Your task to perform on an android device: Do I have any events this weekend? Image 0: 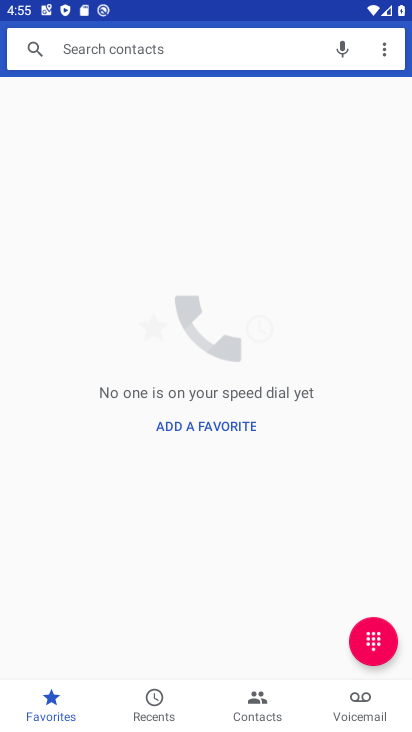
Step 0: press home button
Your task to perform on an android device: Do I have any events this weekend? Image 1: 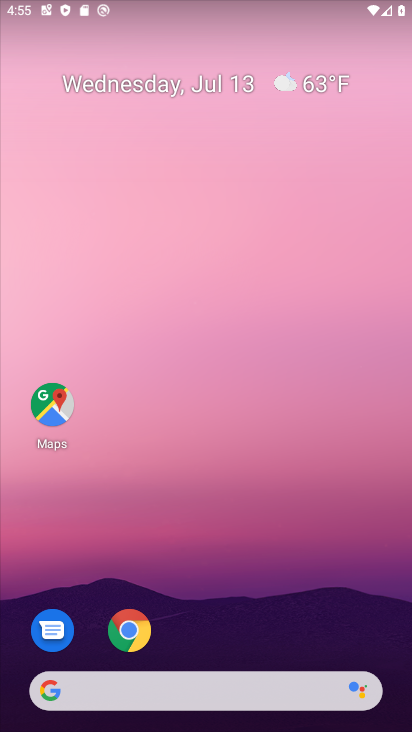
Step 1: drag from (241, 653) to (253, 251)
Your task to perform on an android device: Do I have any events this weekend? Image 2: 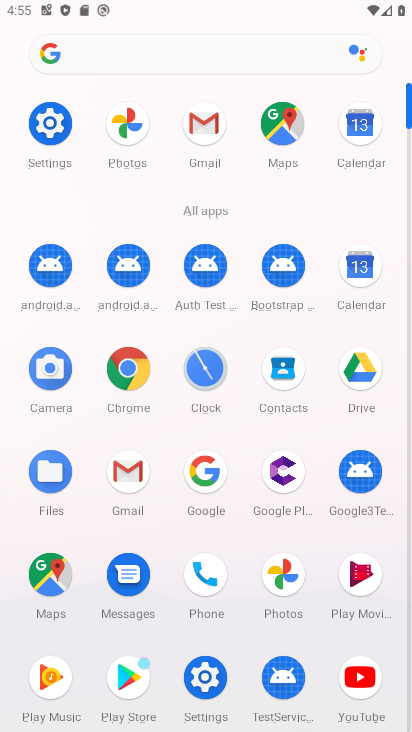
Step 2: click (372, 272)
Your task to perform on an android device: Do I have any events this weekend? Image 3: 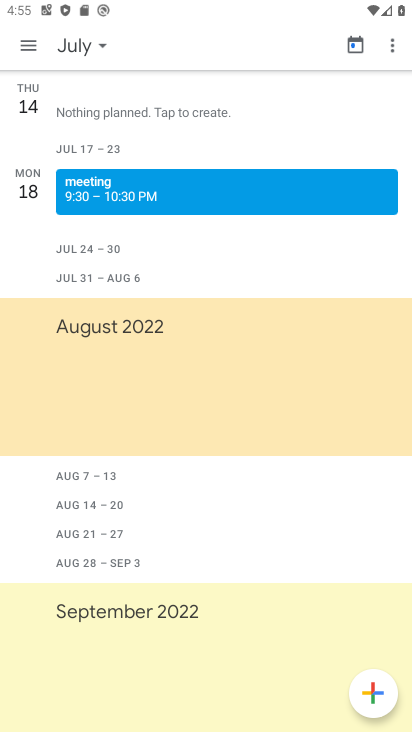
Step 3: click (25, 55)
Your task to perform on an android device: Do I have any events this weekend? Image 4: 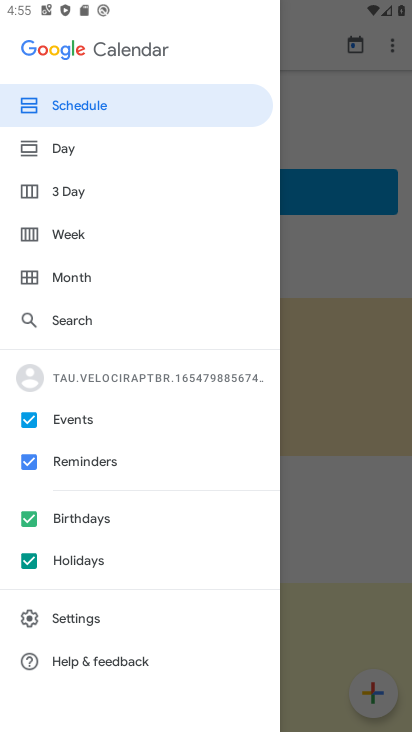
Step 4: click (77, 233)
Your task to perform on an android device: Do I have any events this weekend? Image 5: 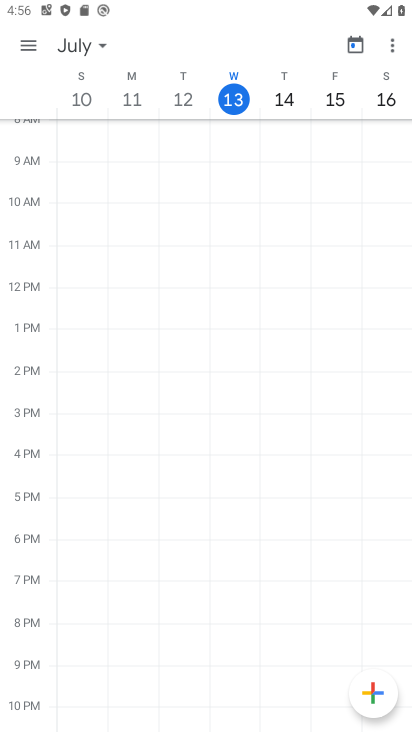
Step 5: click (337, 101)
Your task to perform on an android device: Do I have any events this weekend? Image 6: 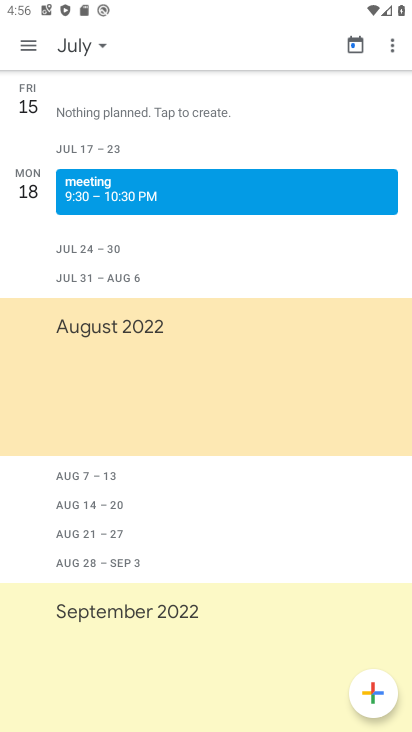
Step 6: task complete